Your task to perform on an android device: change alarm snooze length Image 0: 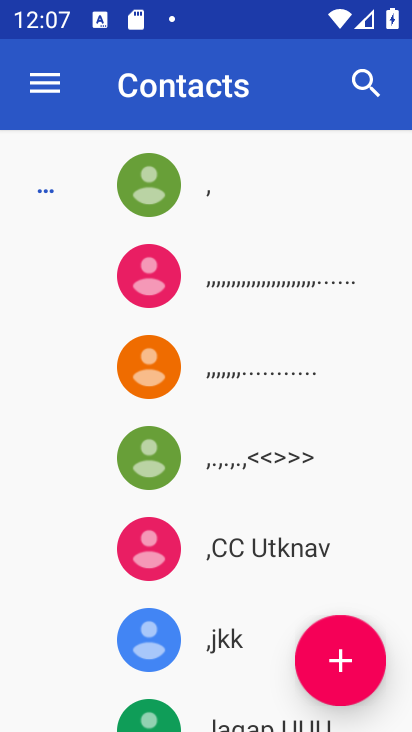
Step 0: press home button
Your task to perform on an android device: change alarm snooze length Image 1: 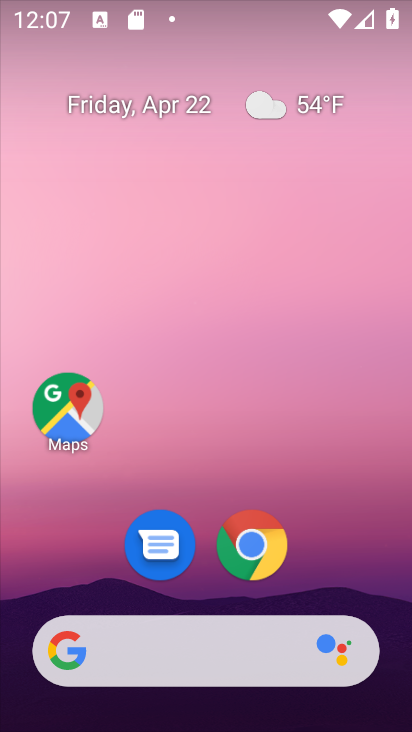
Step 1: drag from (370, 556) to (301, 73)
Your task to perform on an android device: change alarm snooze length Image 2: 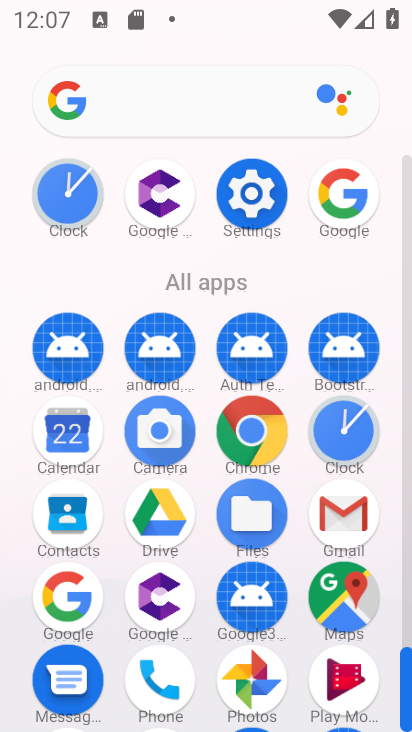
Step 2: click (356, 433)
Your task to perform on an android device: change alarm snooze length Image 3: 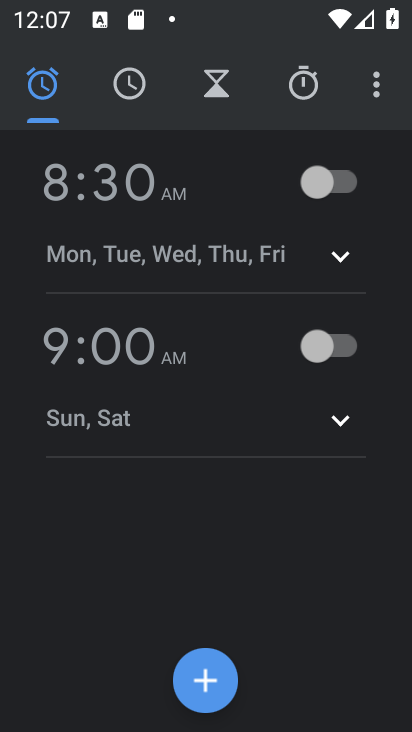
Step 3: click (377, 97)
Your task to perform on an android device: change alarm snooze length Image 4: 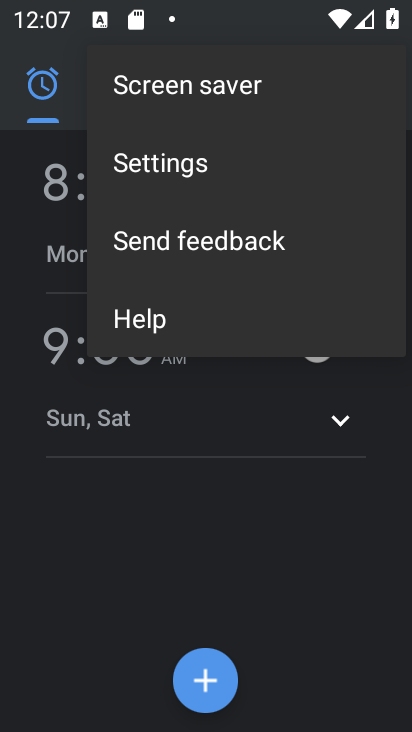
Step 4: click (226, 163)
Your task to perform on an android device: change alarm snooze length Image 5: 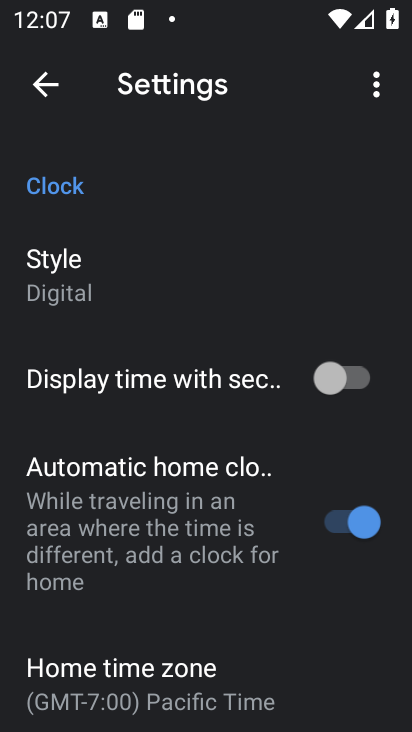
Step 5: drag from (149, 593) to (213, 247)
Your task to perform on an android device: change alarm snooze length Image 6: 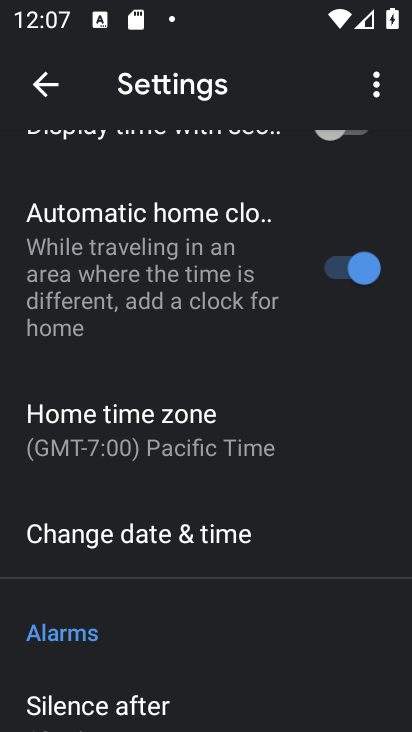
Step 6: drag from (240, 606) to (267, 269)
Your task to perform on an android device: change alarm snooze length Image 7: 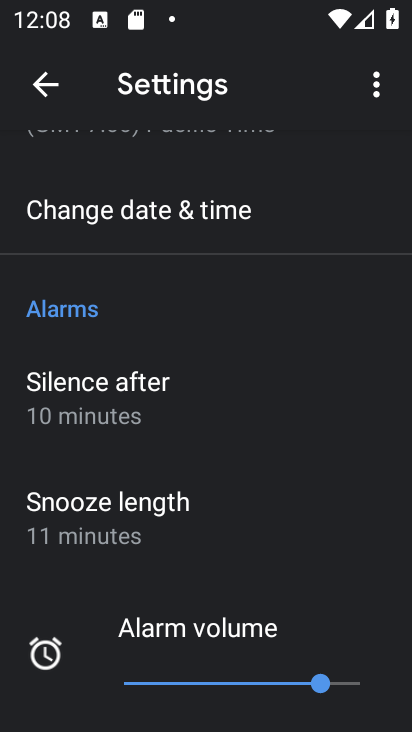
Step 7: click (193, 542)
Your task to perform on an android device: change alarm snooze length Image 8: 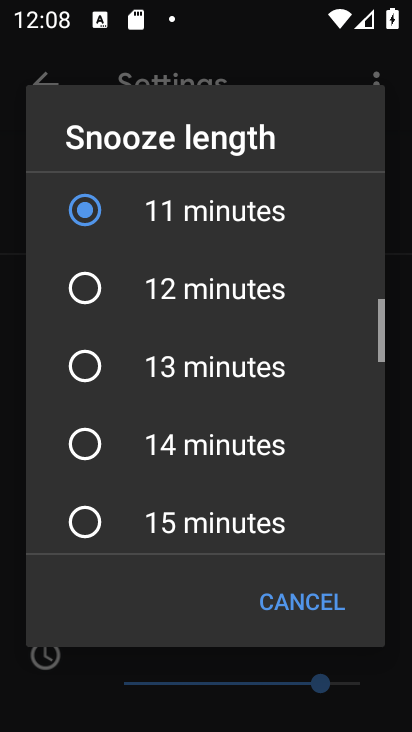
Step 8: click (177, 301)
Your task to perform on an android device: change alarm snooze length Image 9: 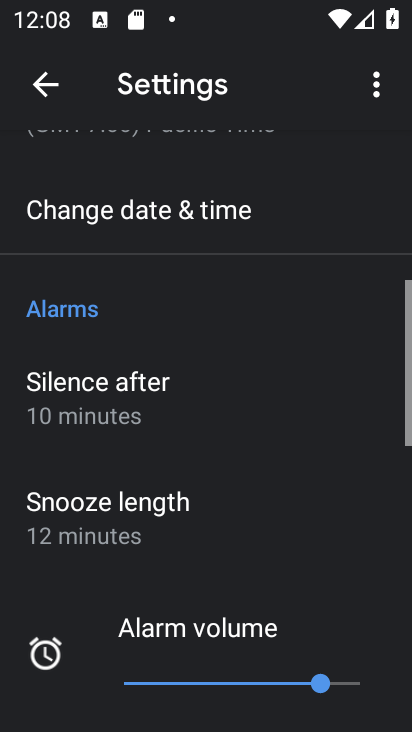
Step 9: task complete